Your task to perform on an android device: check google app version Image 0: 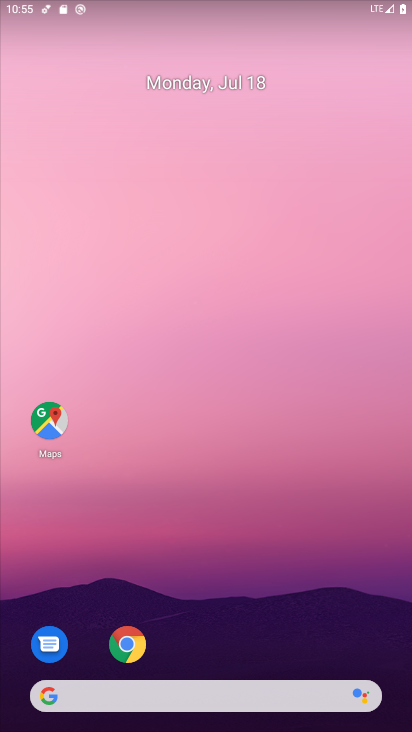
Step 0: drag from (358, 613) to (384, 163)
Your task to perform on an android device: check google app version Image 1: 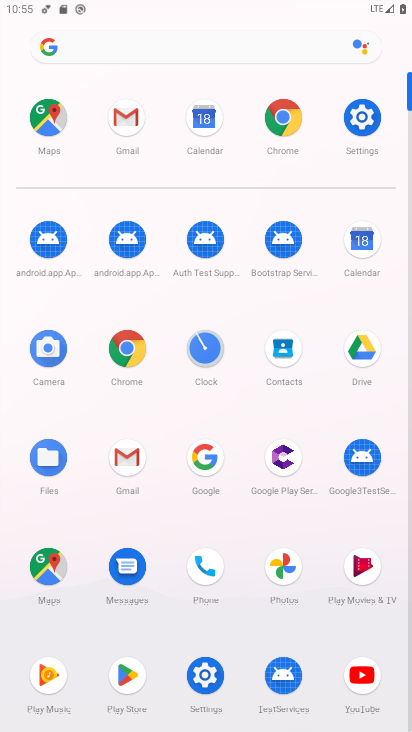
Step 1: click (200, 464)
Your task to perform on an android device: check google app version Image 2: 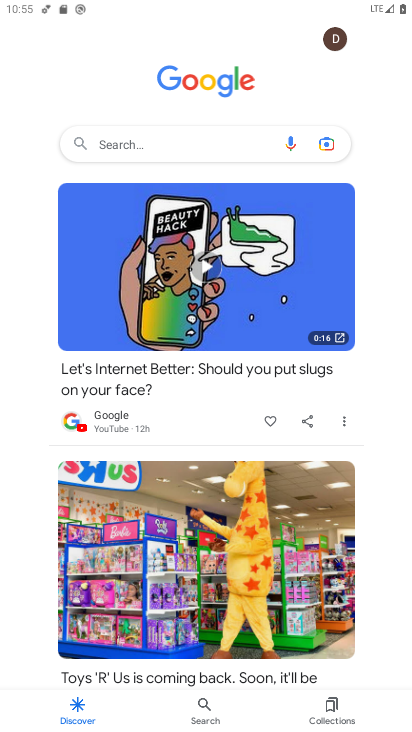
Step 2: click (335, 35)
Your task to perform on an android device: check google app version Image 3: 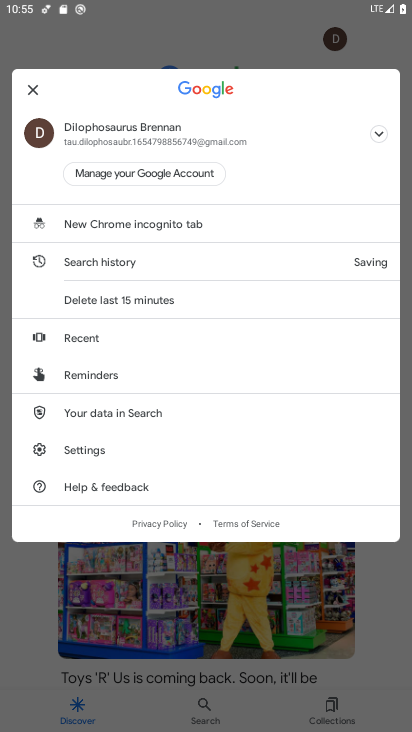
Step 3: click (138, 460)
Your task to perform on an android device: check google app version Image 4: 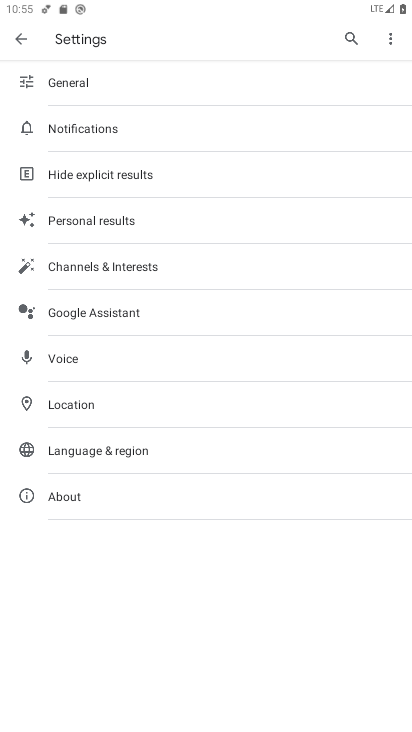
Step 4: click (176, 498)
Your task to perform on an android device: check google app version Image 5: 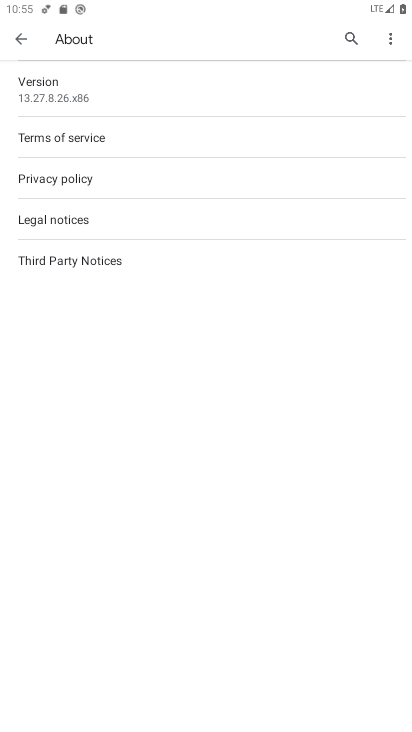
Step 5: task complete